Your task to perform on an android device: change the clock display to digital Image 0: 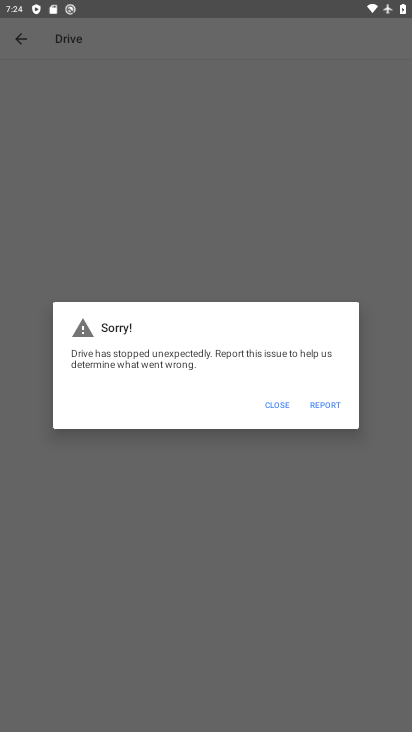
Step 0: press home button
Your task to perform on an android device: change the clock display to digital Image 1: 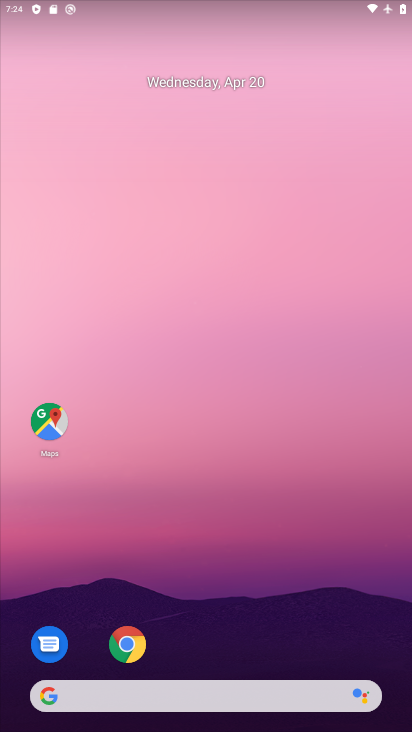
Step 1: drag from (313, 630) to (198, 44)
Your task to perform on an android device: change the clock display to digital Image 2: 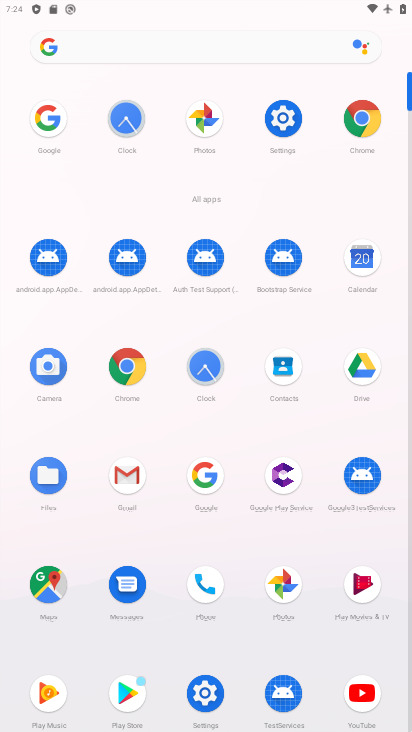
Step 2: click (214, 363)
Your task to perform on an android device: change the clock display to digital Image 3: 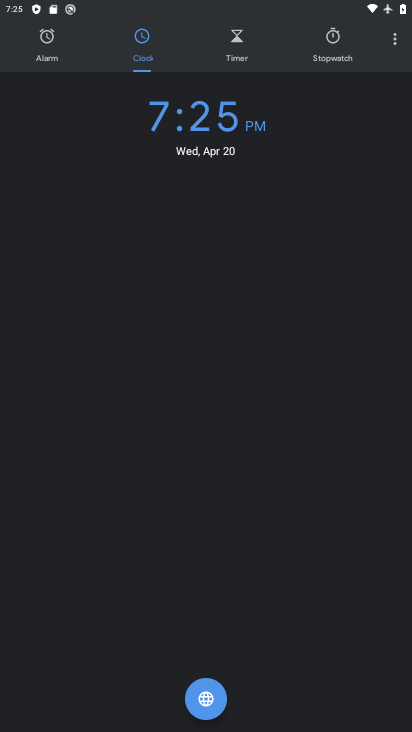
Step 3: click (391, 35)
Your task to perform on an android device: change the clock display to digital Image 4: 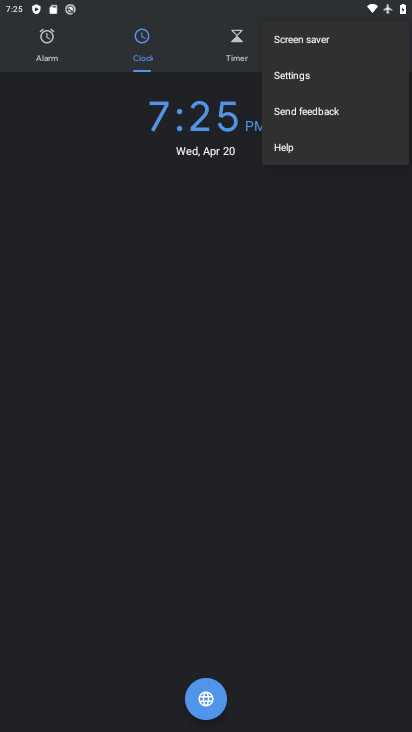
Step 4: click (294, 73)
Your task to perform on an android device: change the clock display to digital Image 5: 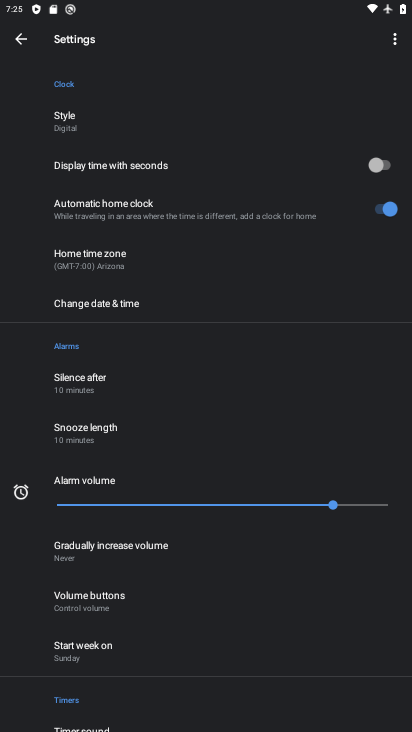
Step 5: click (118, 122)
Your task to perform on an android device: change the clock display to digital Image 6: 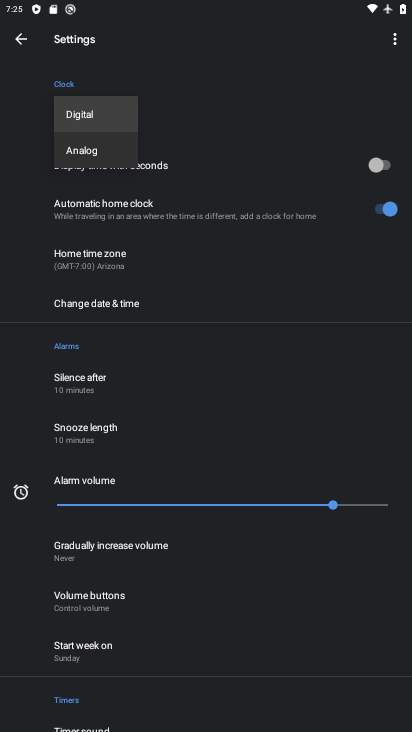
Step 6: task complete